Your task to perform on an android device: open chrome and create a bookmark for the current page Image 0: 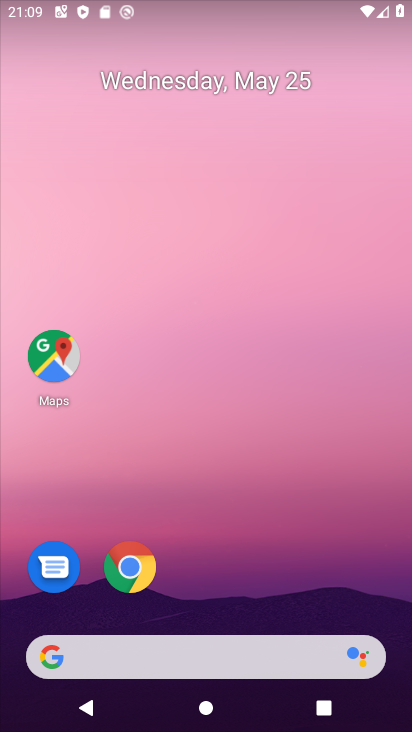
Step 0: click (135, 567)
Your task to perform on an android device: open chrome and create a bookmark for the current page Image 1: 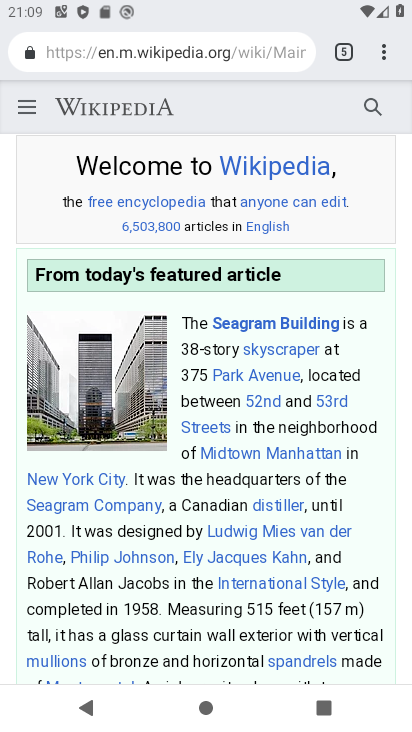
Step 1: click (380, 56)
Your task to perform on an android device: open chrome and create a bookmark for the current page Image 2: 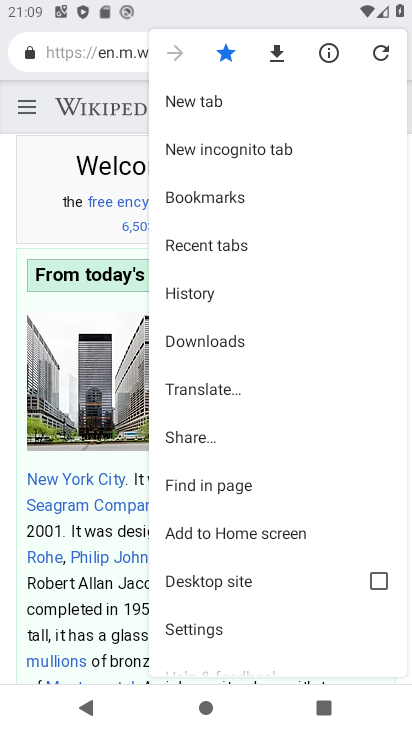
Step 2: task complete